Your task to perform on an android device: Search for macbook pro 13 inch on bestbuy.com, select the first entry, and add it to the cart. Image 0: 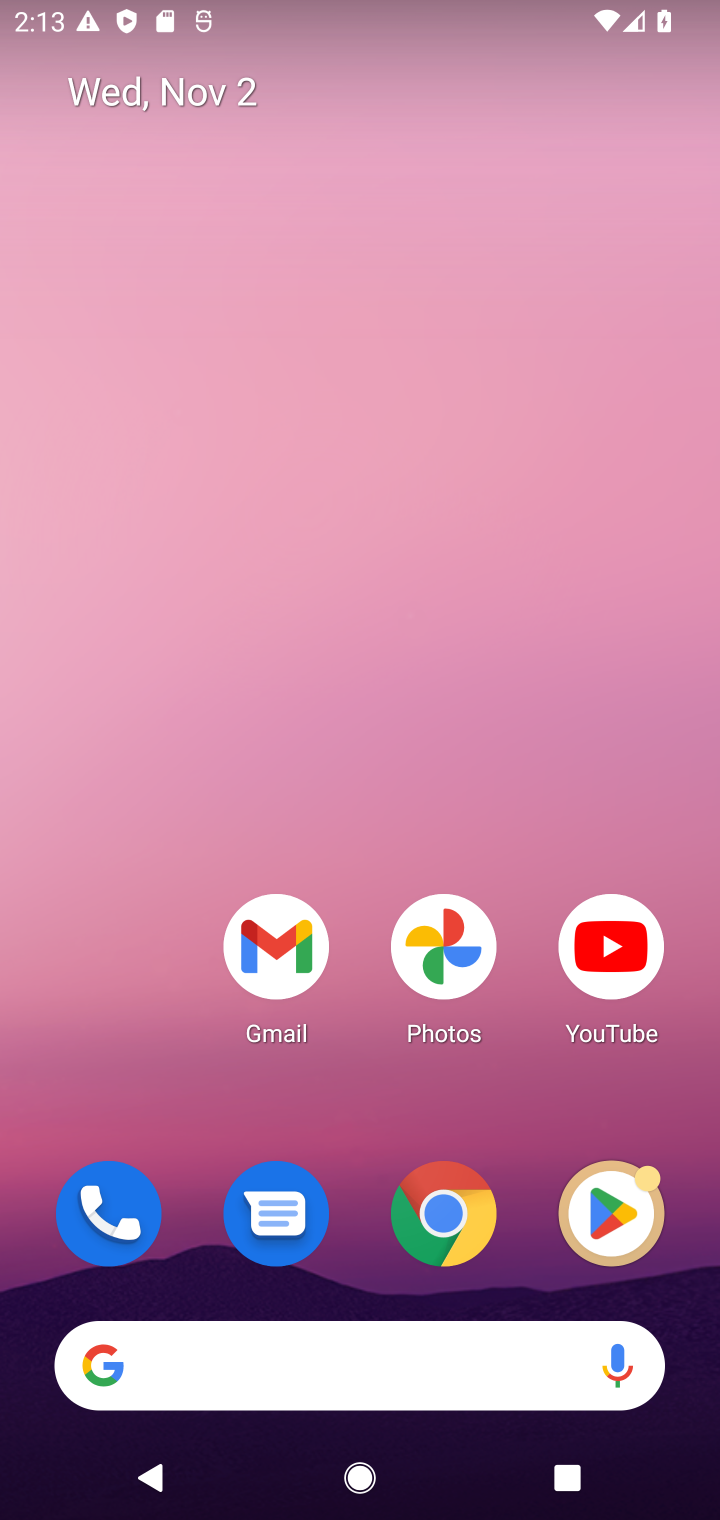
Step 0: click (446, 1221)
Your task to perform on an android device: Search for macbook pro 13 inch on bestbuy.com, select the first entry, and add it to the cart. Image 1: 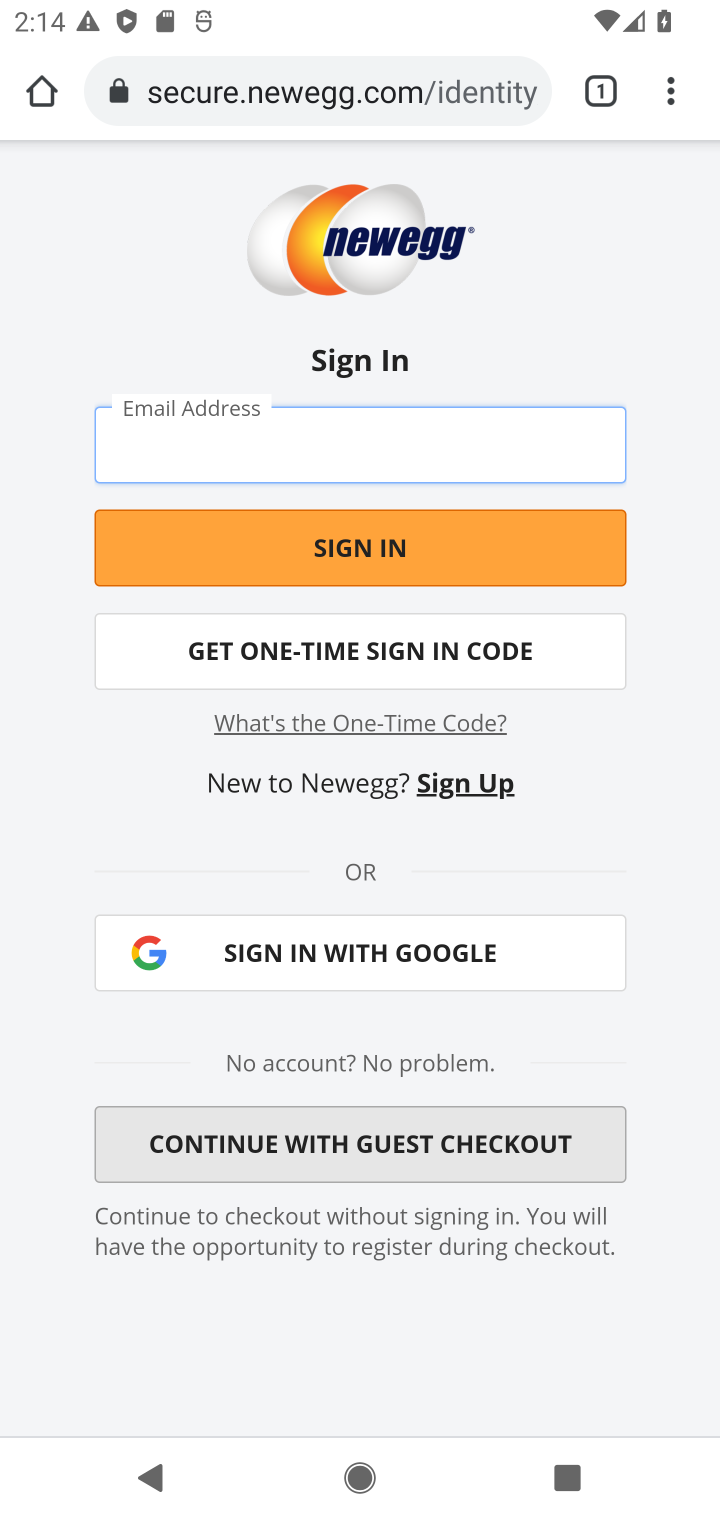
Step 1: click (375, 89)
Your task to perform on an android device: Search for macbook pro 13 inch on bestbuy.com, select the first entry, and add it to the cart. Image 2: 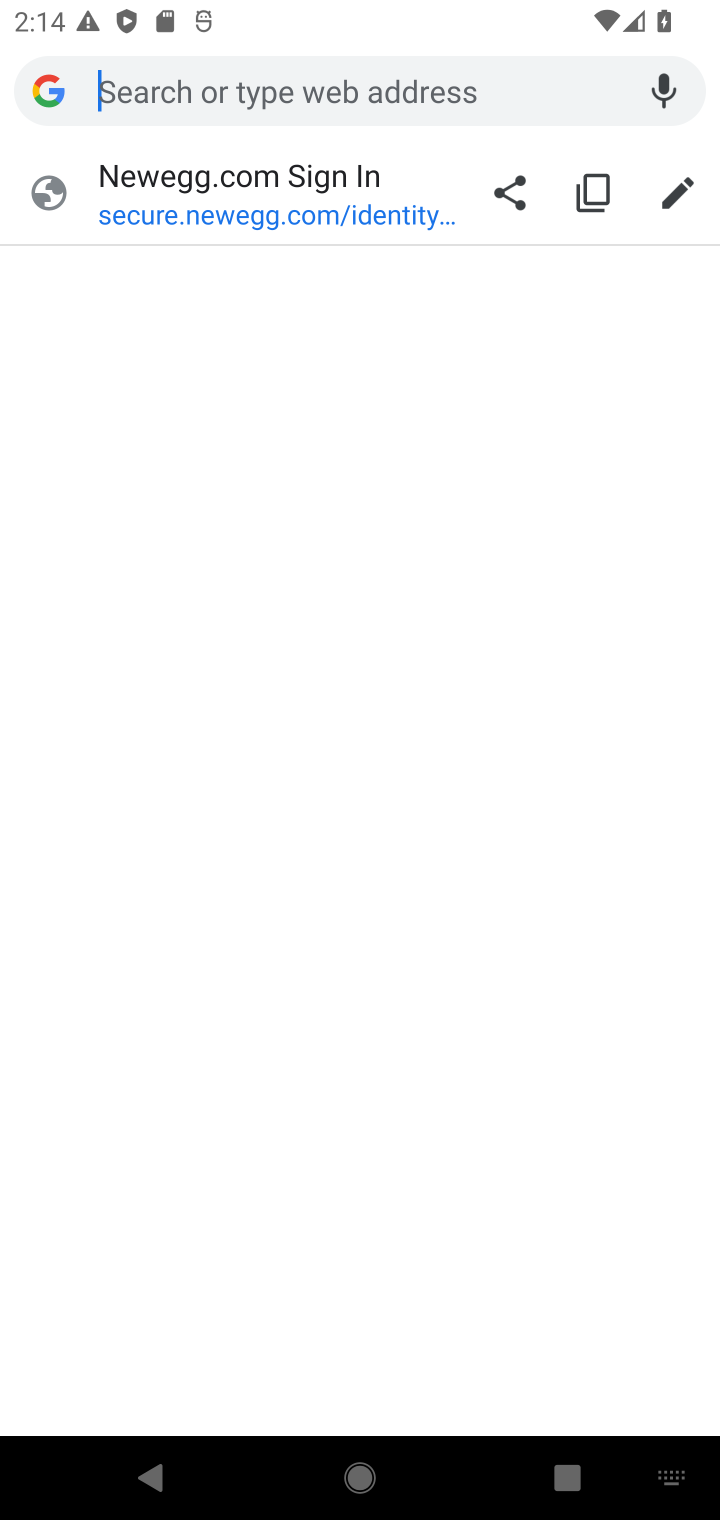
Step 2: type "bestbuy.com"
Your task to perform on an android device: Search for macbook pro 13 inch on bestbuy.com, select the first entry, and add it to the cart. Image 3: 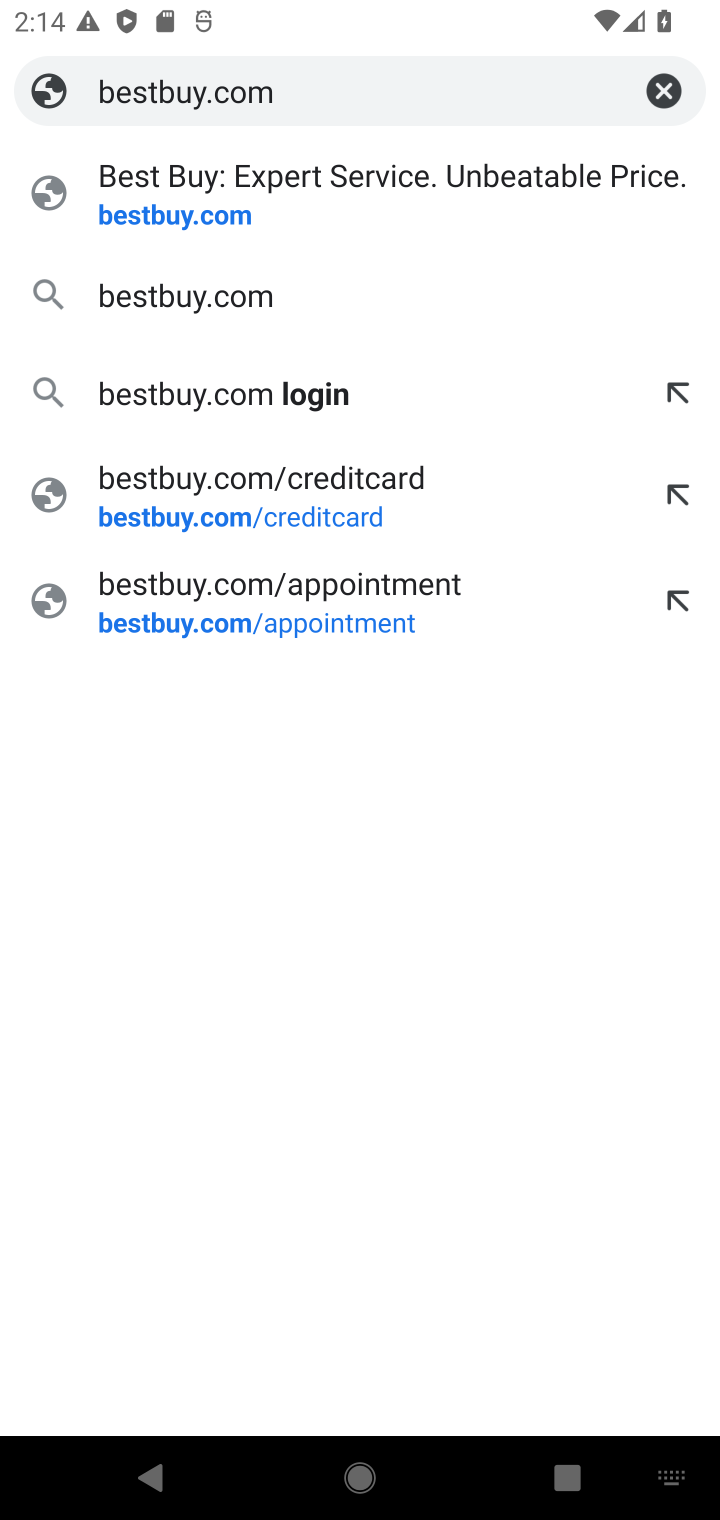
Step 3: press enter
Your task to perform on an android device: Search for macbook pro 13 inch on bestbuy.com, select the first entry, and add it to the cart. Image 4: 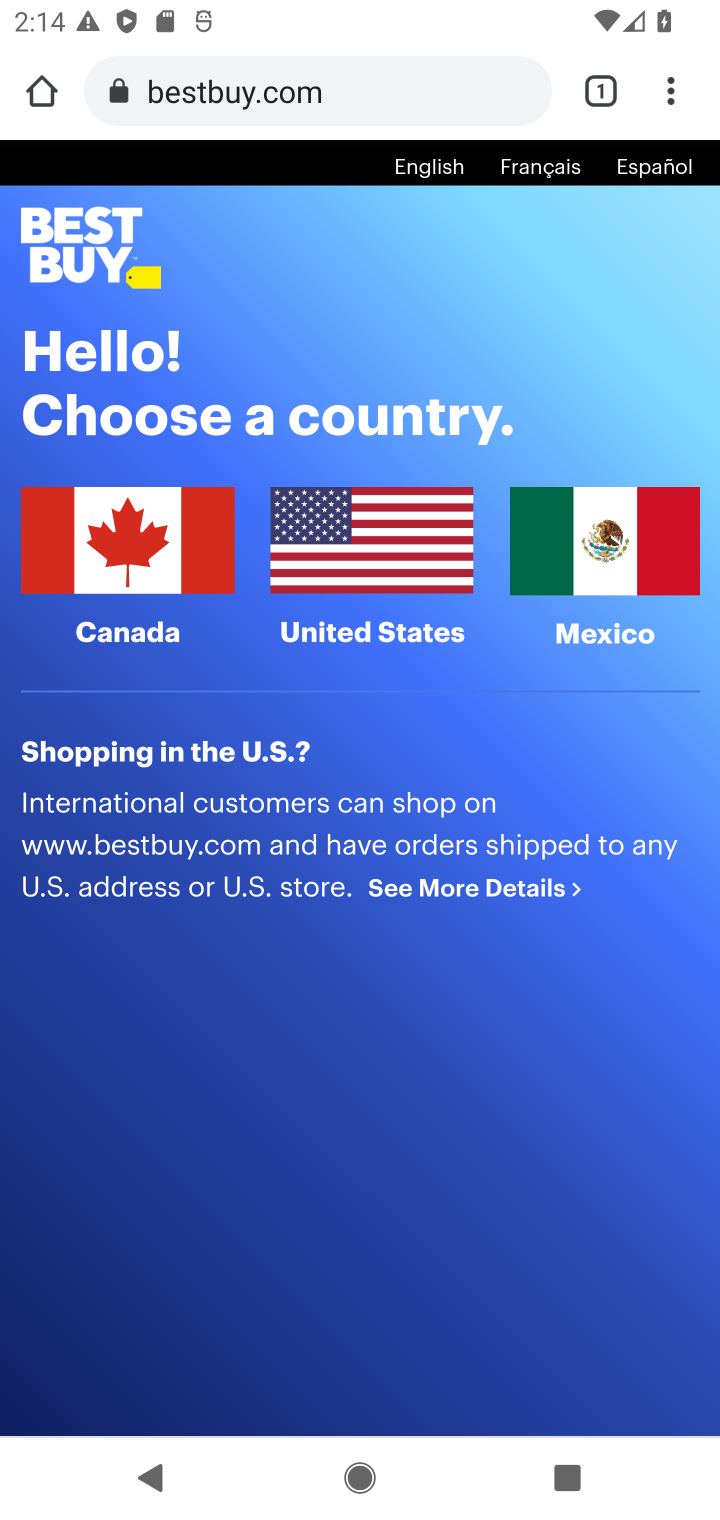
Step 4: click (360, 533)
Your task to perform on an android device: Search for macbook pro 13 inch on bestbuy.com, select the first entry, and add it to the cart. Image 5: 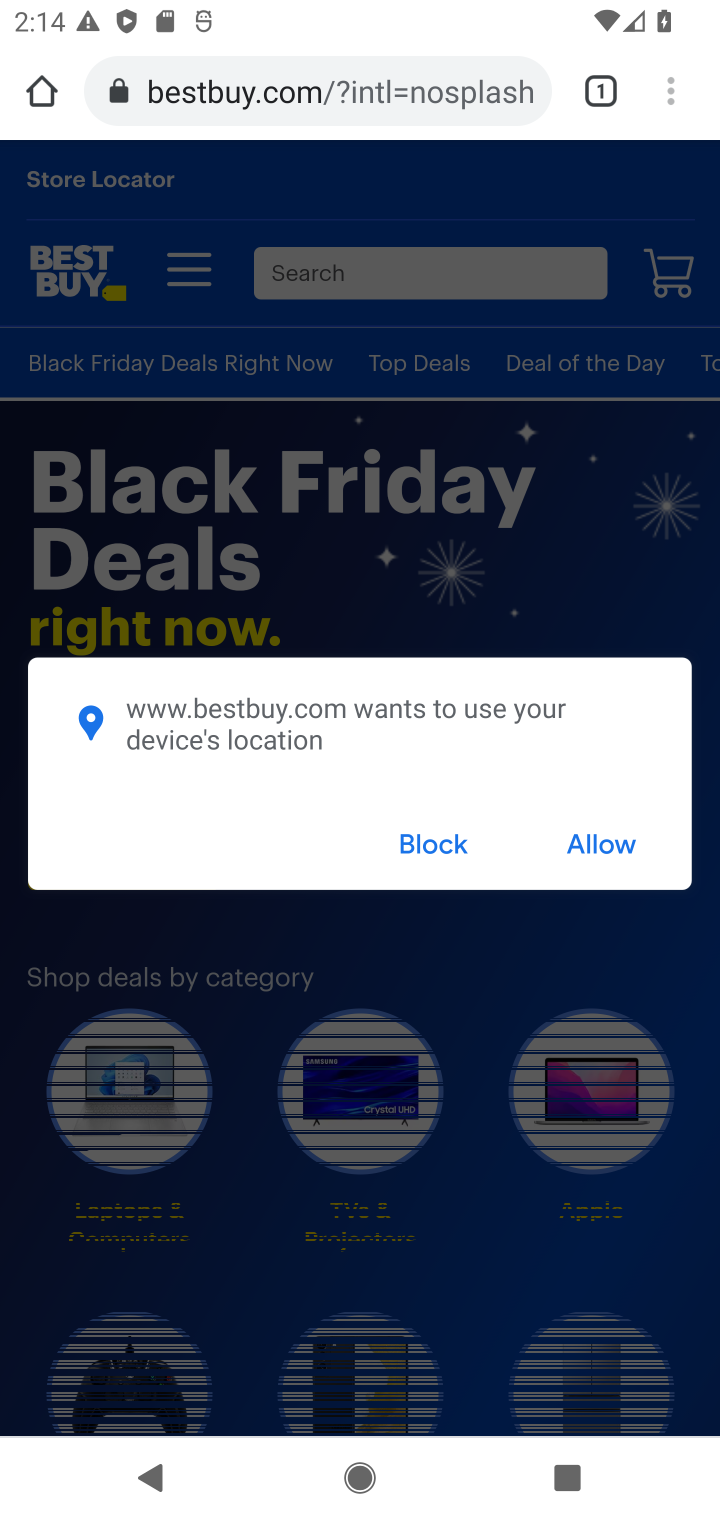
Step 5: click (592, 845)
Your task to perform on an android device: Search for macbook pro 13 inch on bestbuy.com, select the first entry, and add it to the cart. Image 6: 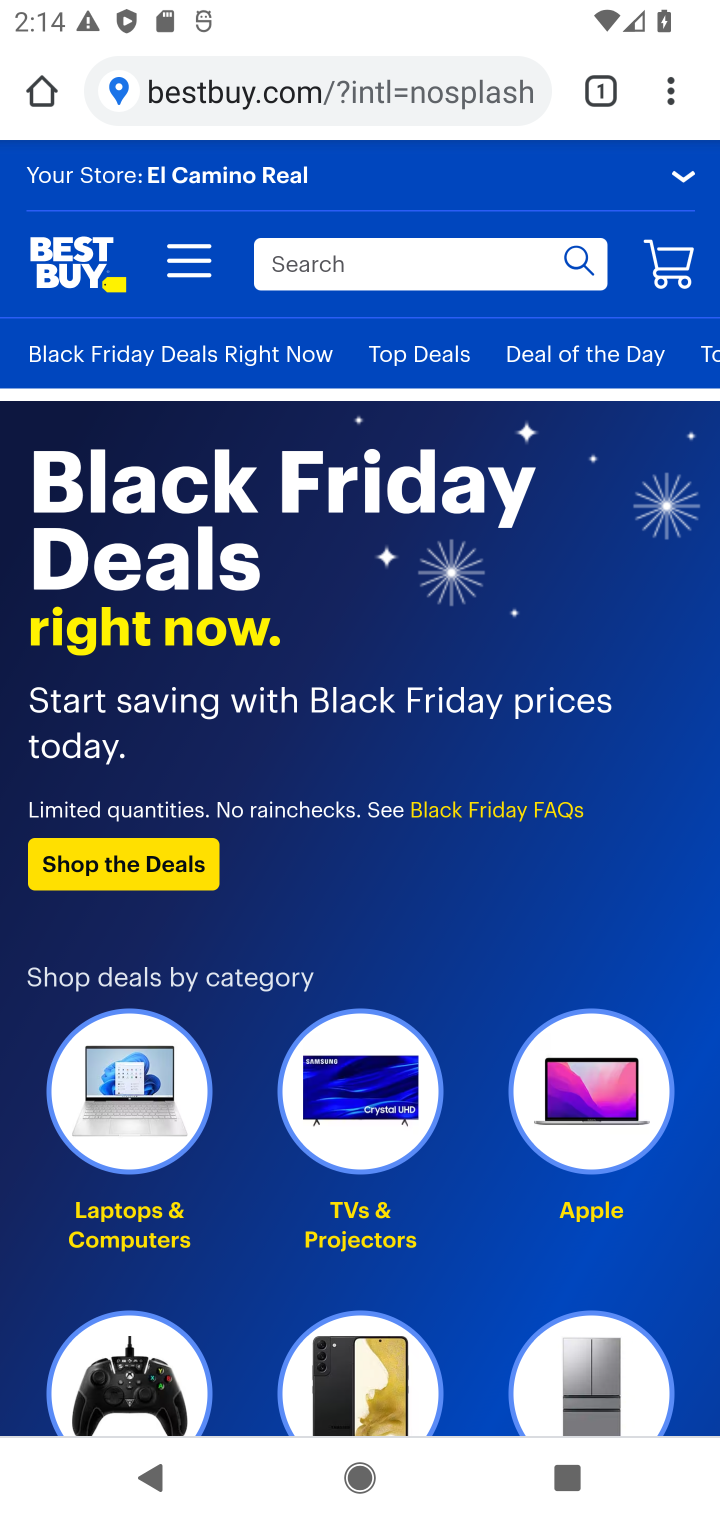
Step 6: click (347, 269)
Your task to perform on an android device: Search for macbook pro 13 inch on bestbuy.com, select the first entry, and add it to the cart. Image 7: 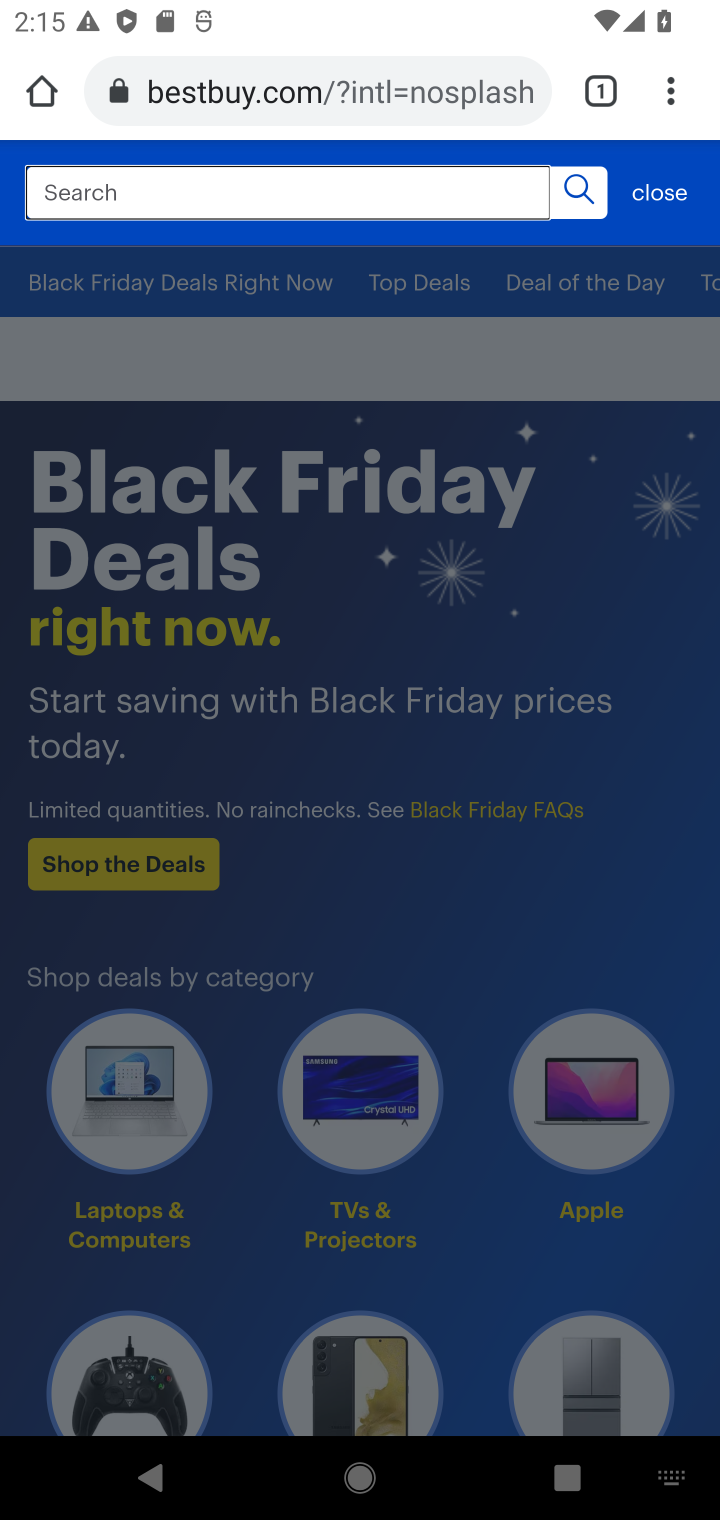
Step 7: type "macbook pro 13 inch"
Your task to perform on an android device: Search for macbook pro 13 inch on bestbuy.com, select the first entry, and add it to the cart. Image 8: 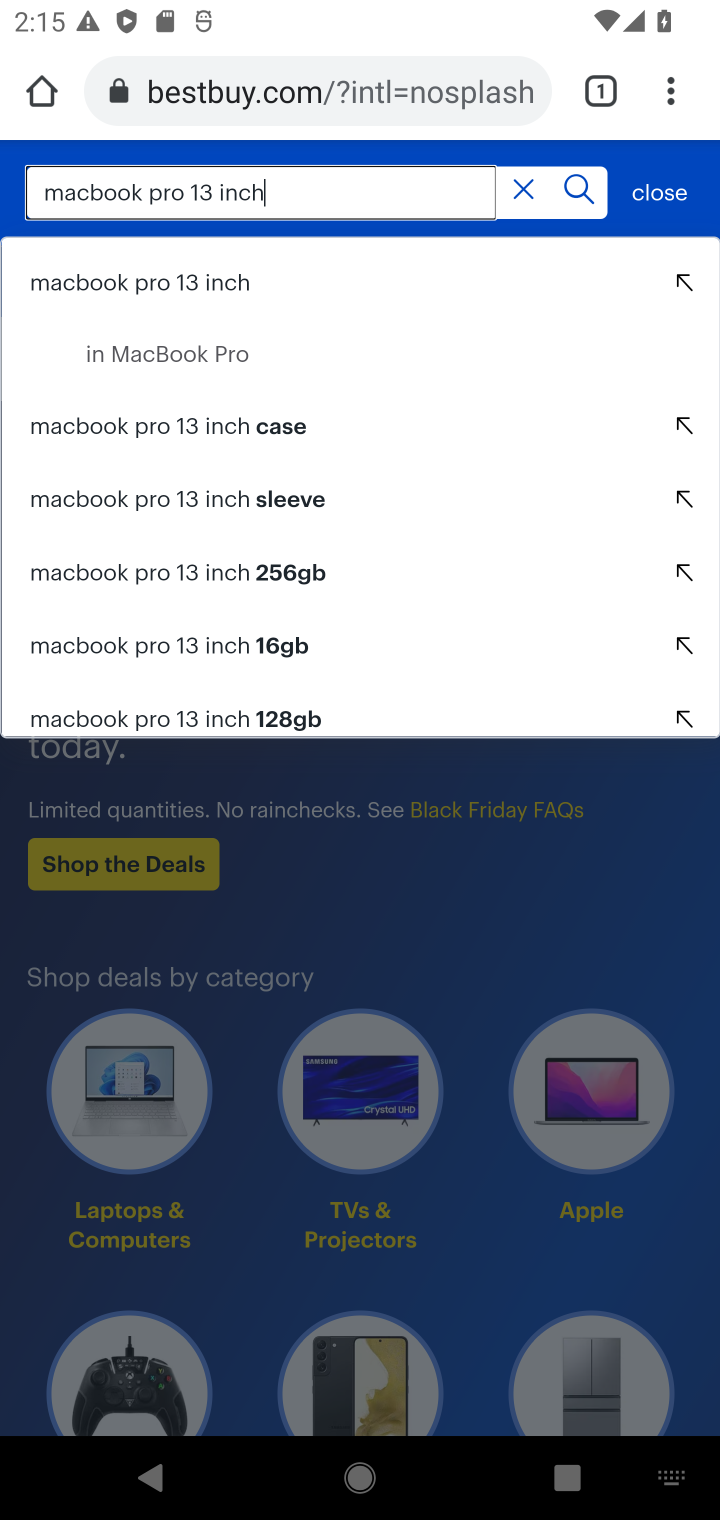
Step 8: press enter
Your task to perform on an android device: Search for macbook pro 13 inch on bestbuy.com, select the first entry, and add it to the cart. Image 9: 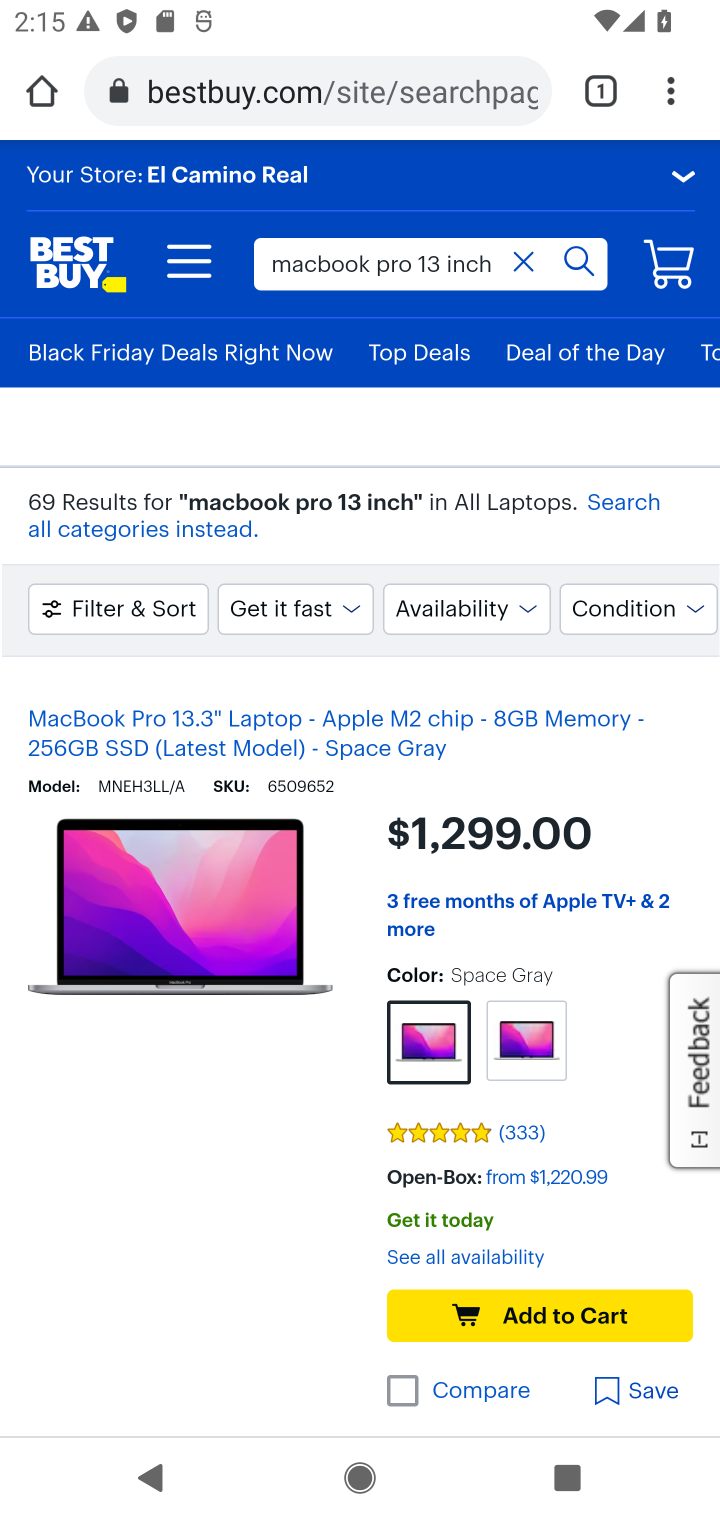
Step 9: click (227, 882)
Your task to perform on an android device: Search for macbook pro 13 inch on bestbuy.com, select the first entry, and add it to the cart. Image 10: 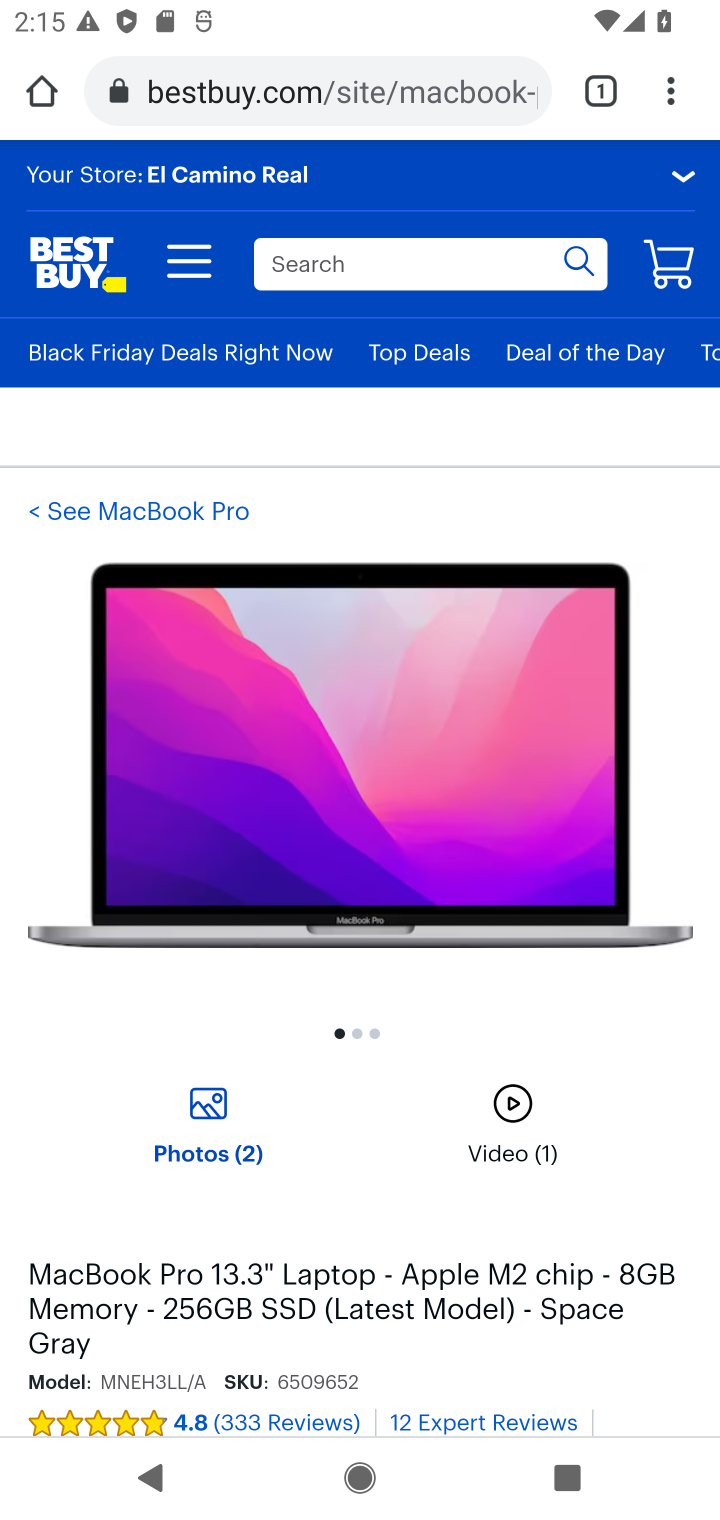
Step 10: drag from (419, 1348) to (330, 788)
Your task to perform on an android device: Search for macbook pro 13 inch on bestbuy.com, select the first entry, and add it to the cart. Image 11: 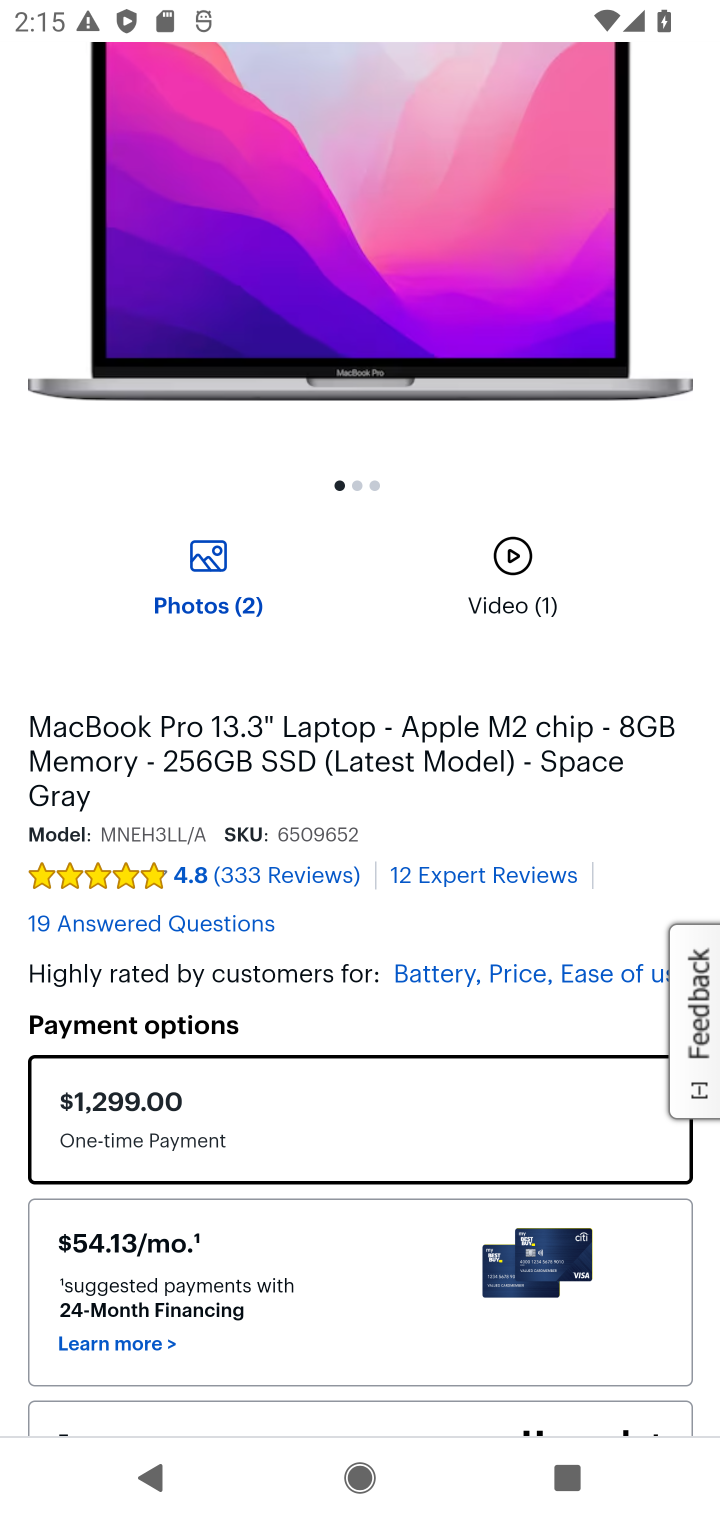
Step 11: drag from (688, 1396) to (456, 509)
Your task to perform on an android device: Search for macbook pro 13 inch on bestbuy.com, select the first entry, and add it to the cart. Image 12: 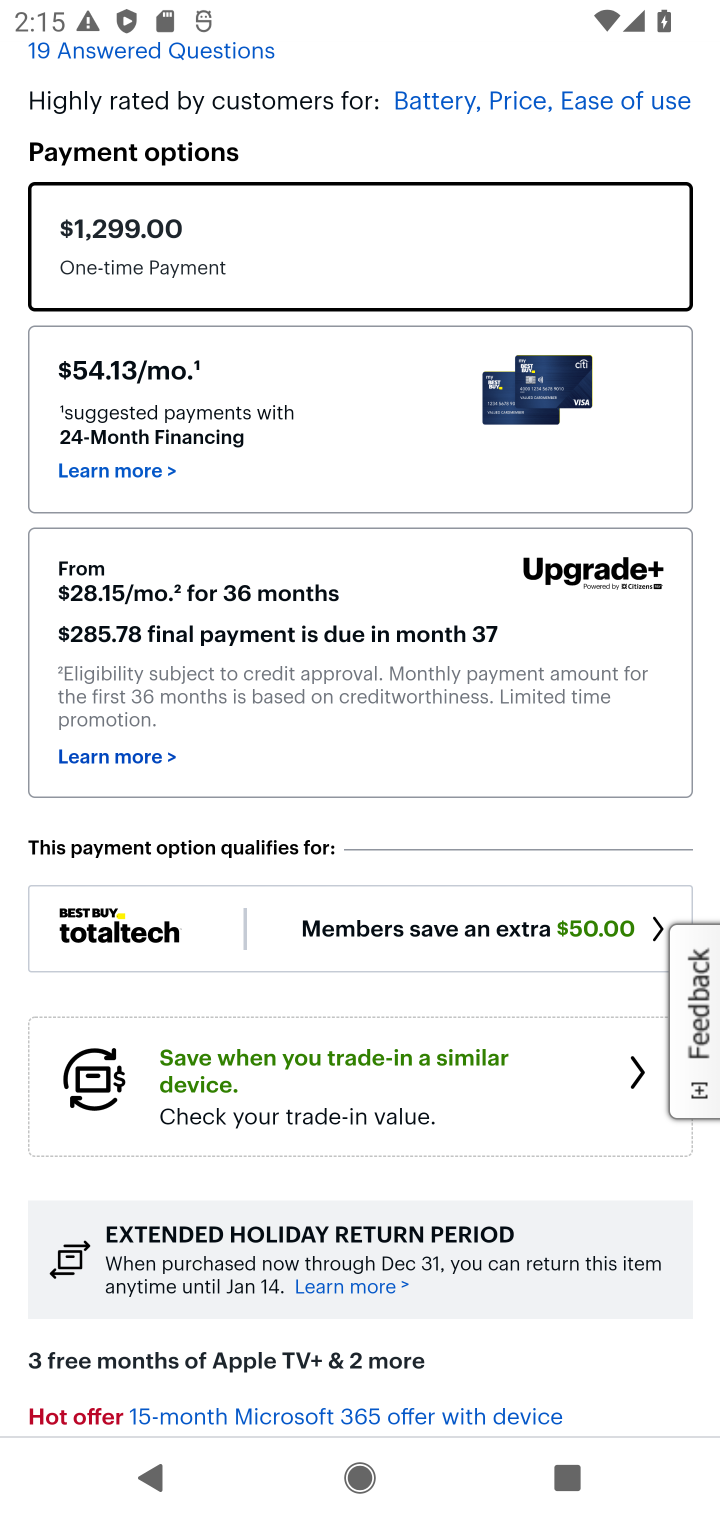
Step 12: drag from (329, 994) to (274, 539)
Your task to perform on an android device: Search for macbook pro 13 inch on bestbuy.com, select the first entry, and add it to the cart. Image 13: 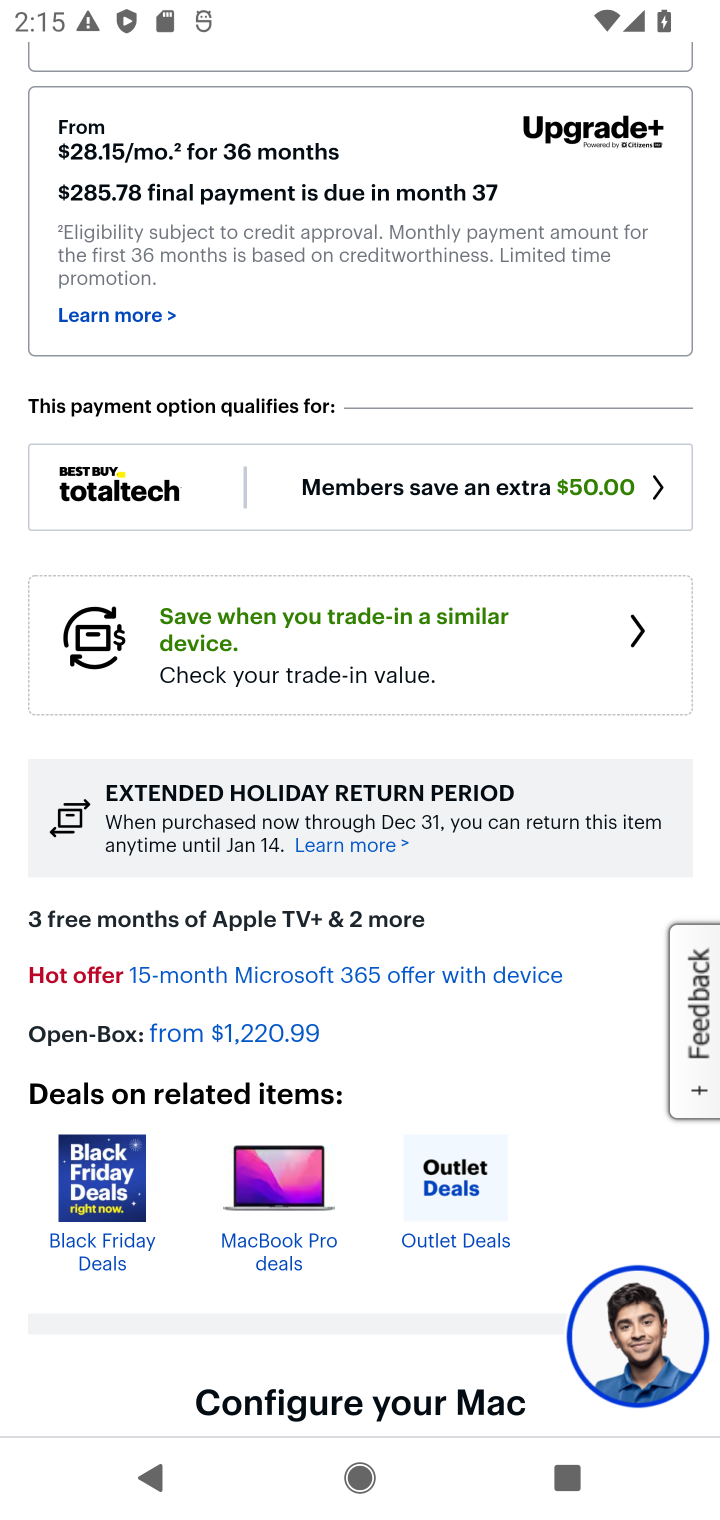
Step 13: drag from (377, 1127) to (285, 250)
Your task to perform on an android device: Search for macbook pro 13 inch on bestbuy.com, select the first entry, and add it to the cart. Image 14: 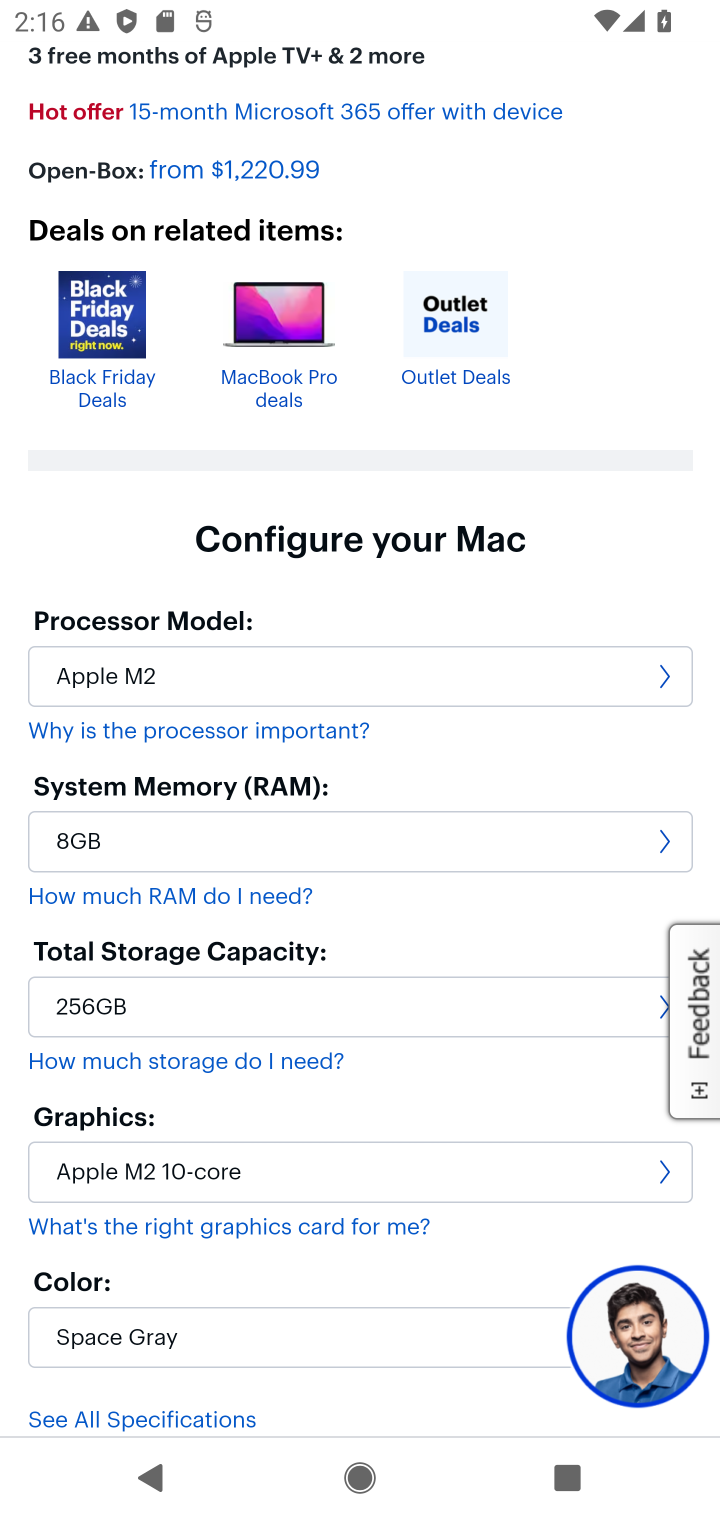
Step 14: drag from (347, 482) to (502, 1519)
Your task to perform on an android device: Search for macbook pro 13 inch on bestbuy.com, select the first entry, and add it to the cart. Image 15: 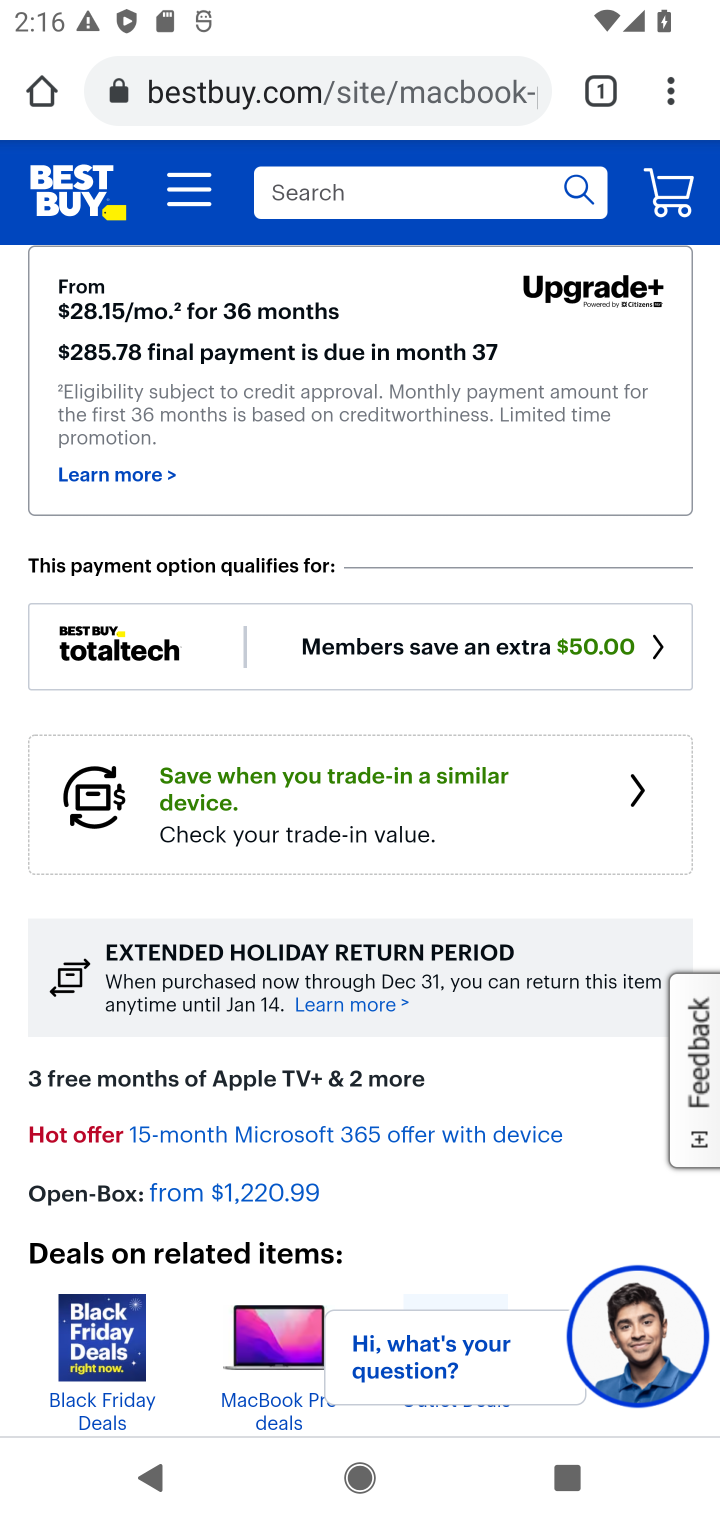
Step 15: drag from (381, 553) to (448, 1446)
Your task to perform on an android device: Search for macbook pro 13 inch on bestbuy.com, select the first entry, and add it to the cart. Image 16: 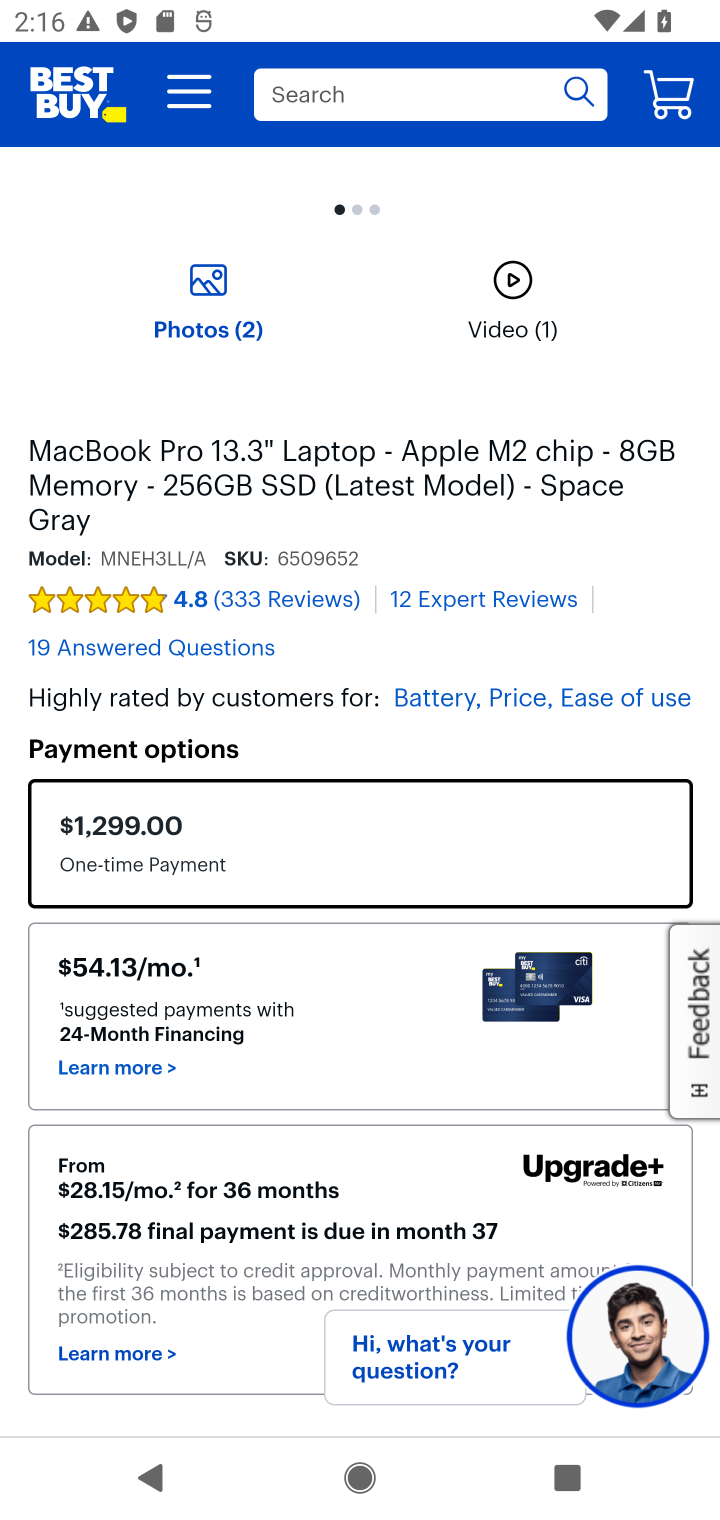
Step 16: drag from (527, 559) to (608, 1418)
Your task to perform on an android device: Search for macbook pro 13 inch on bestbuy.com, select the first entry, and add it to the cart. Image 17: 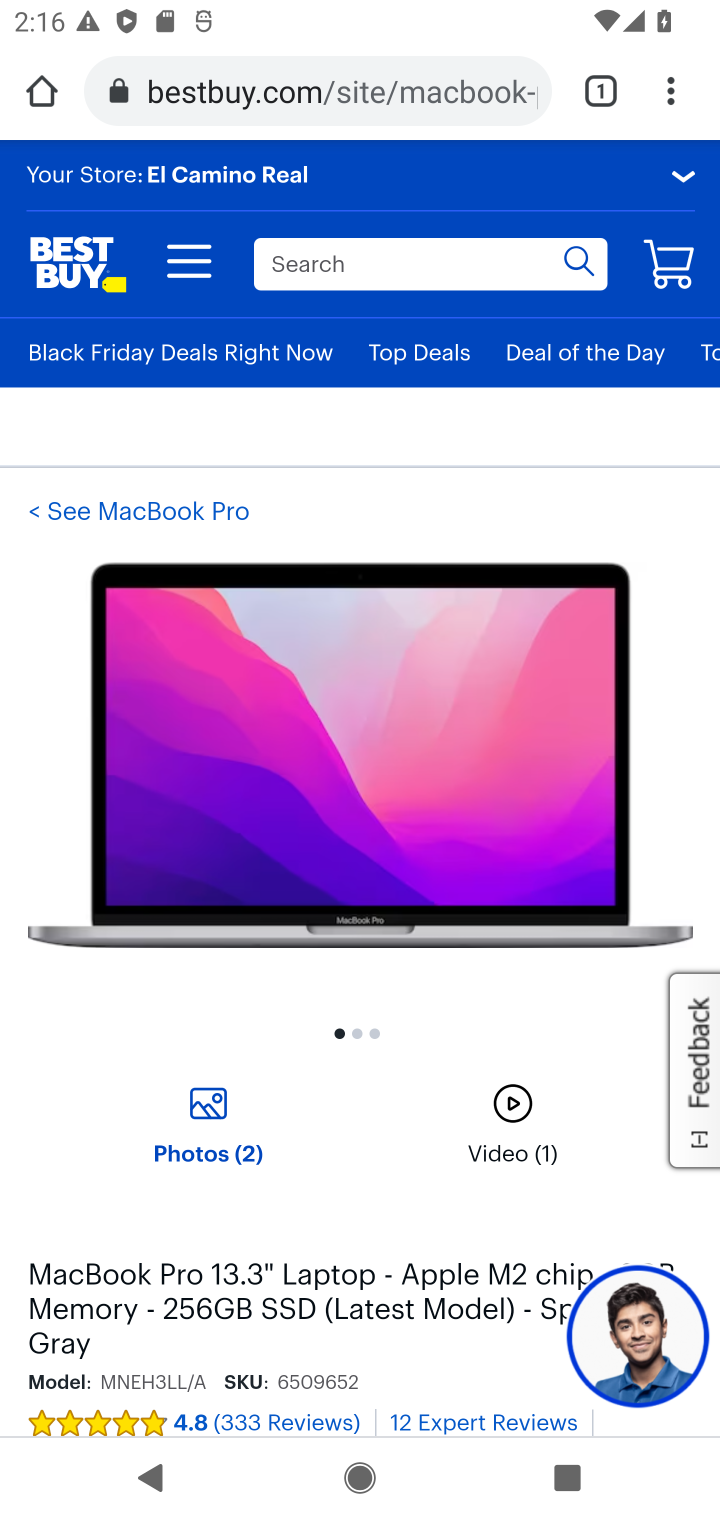
Step 17: drag from (604, 1054) to (369, 175)
Your task to perform on an android device: Search for macbook pro 13 inch on bestbuy.com, select the first entry, and add it to the cart. Image 18: 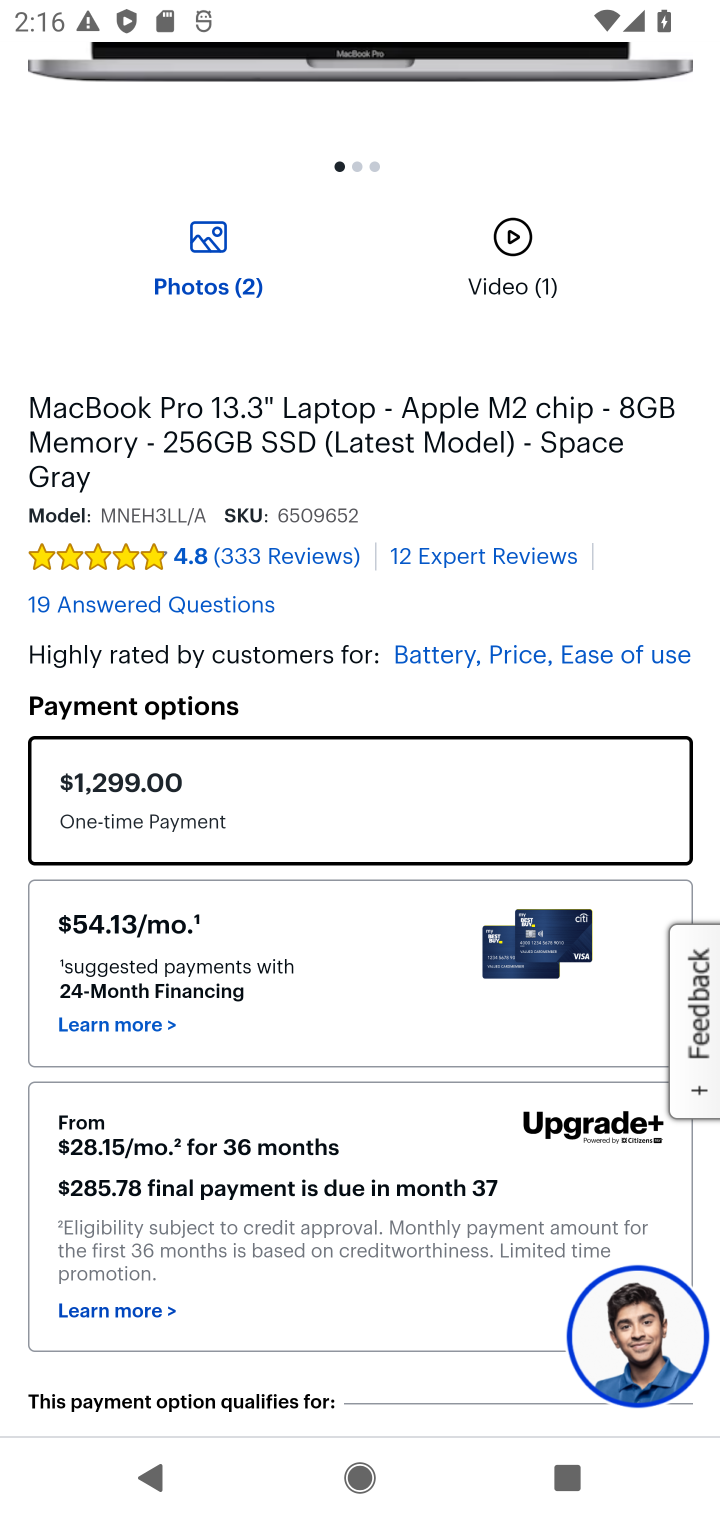
Step 18: drag from (263, 1379) to (208, 47)
Your task to perform on an android device: Search for macbook pro 13 inch on bestbuy.com, select the first entry, and add it to the cart. Image 19: 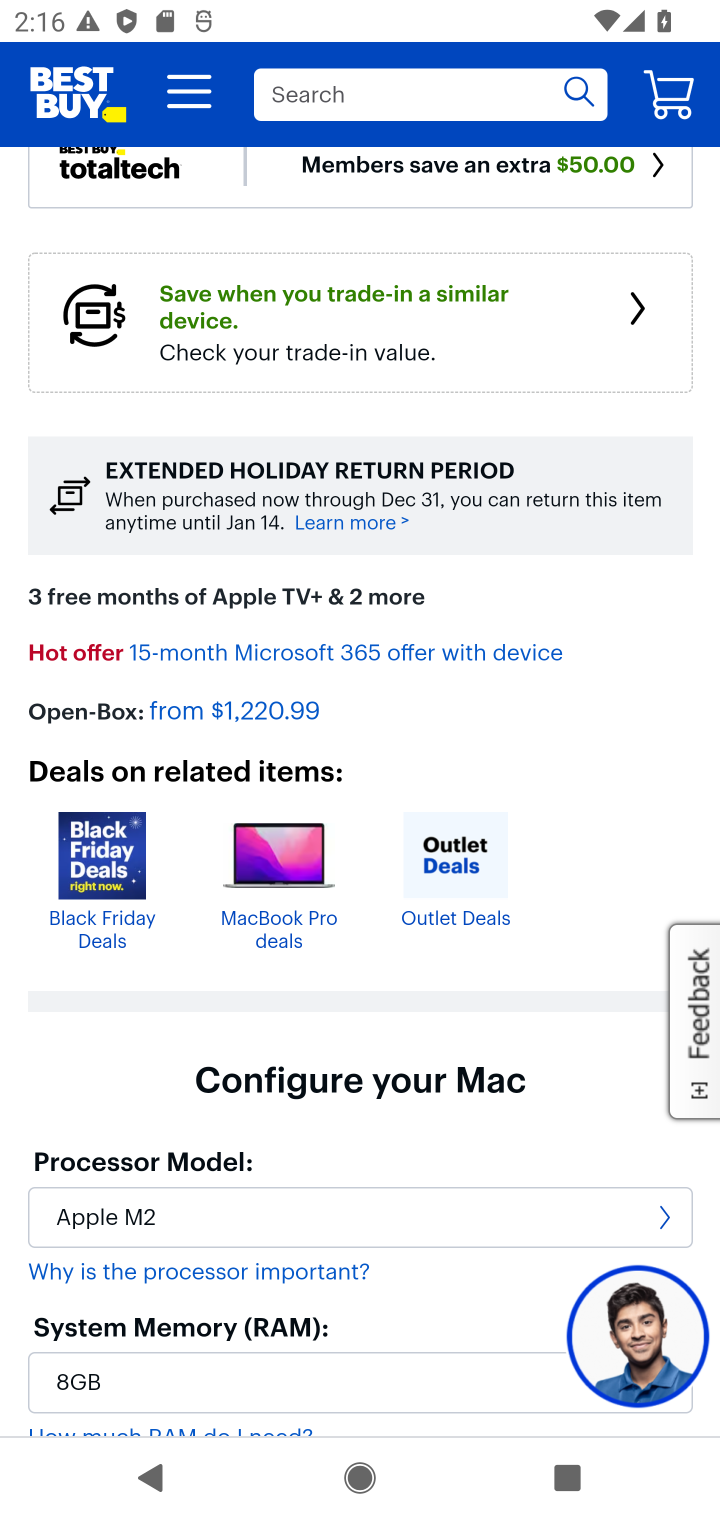
Step 19: drag from (294, 994) to (271, 20)
Your task to perform on an android device: Search for macbook pro 13 inch on bestbuy.com, select the first entry, and add it to the cart. Image 20: 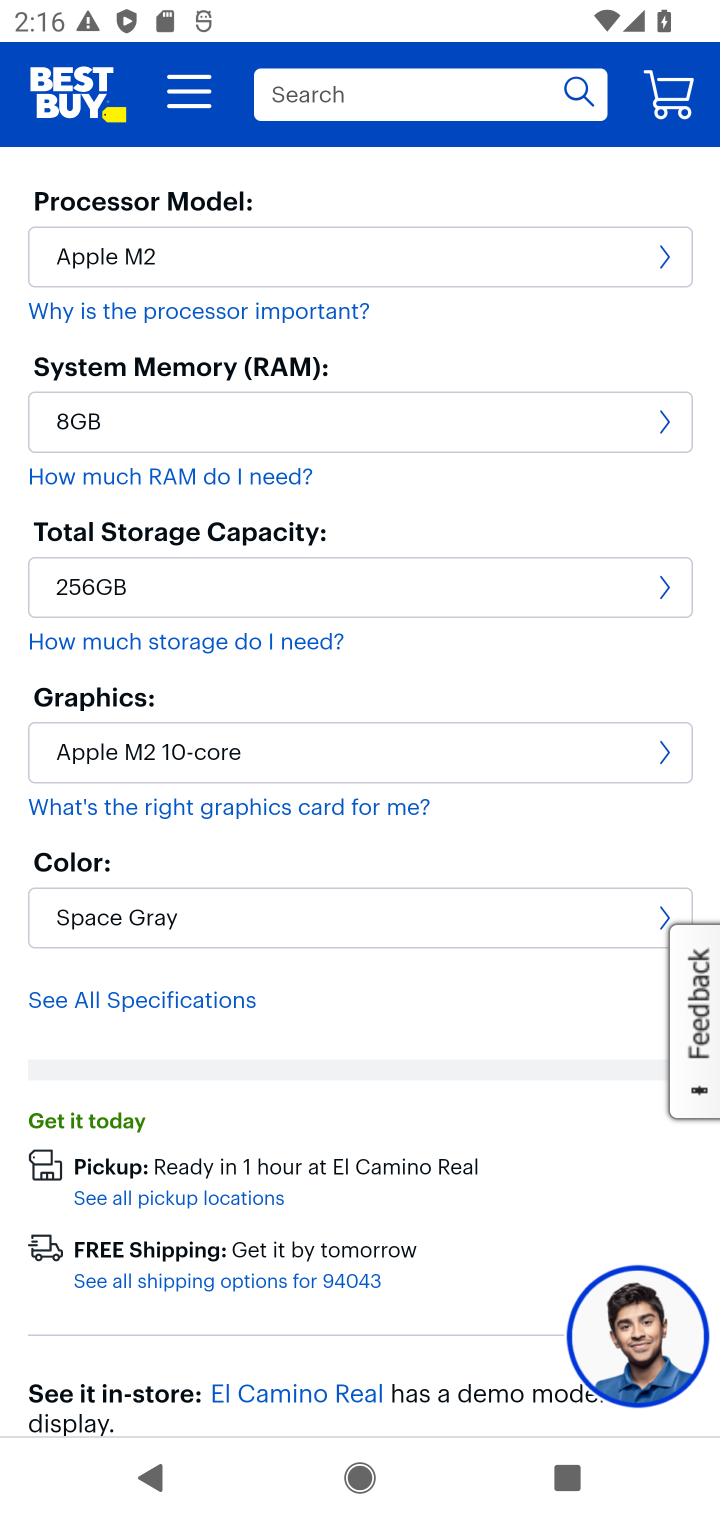
Step 20: drag from (478, 1311) to (347, 327)
Your task to perform on an android device: Search for macbook pro 13 inch on bestbuy.com, select the first entry, and add it to the cart. Image 21: 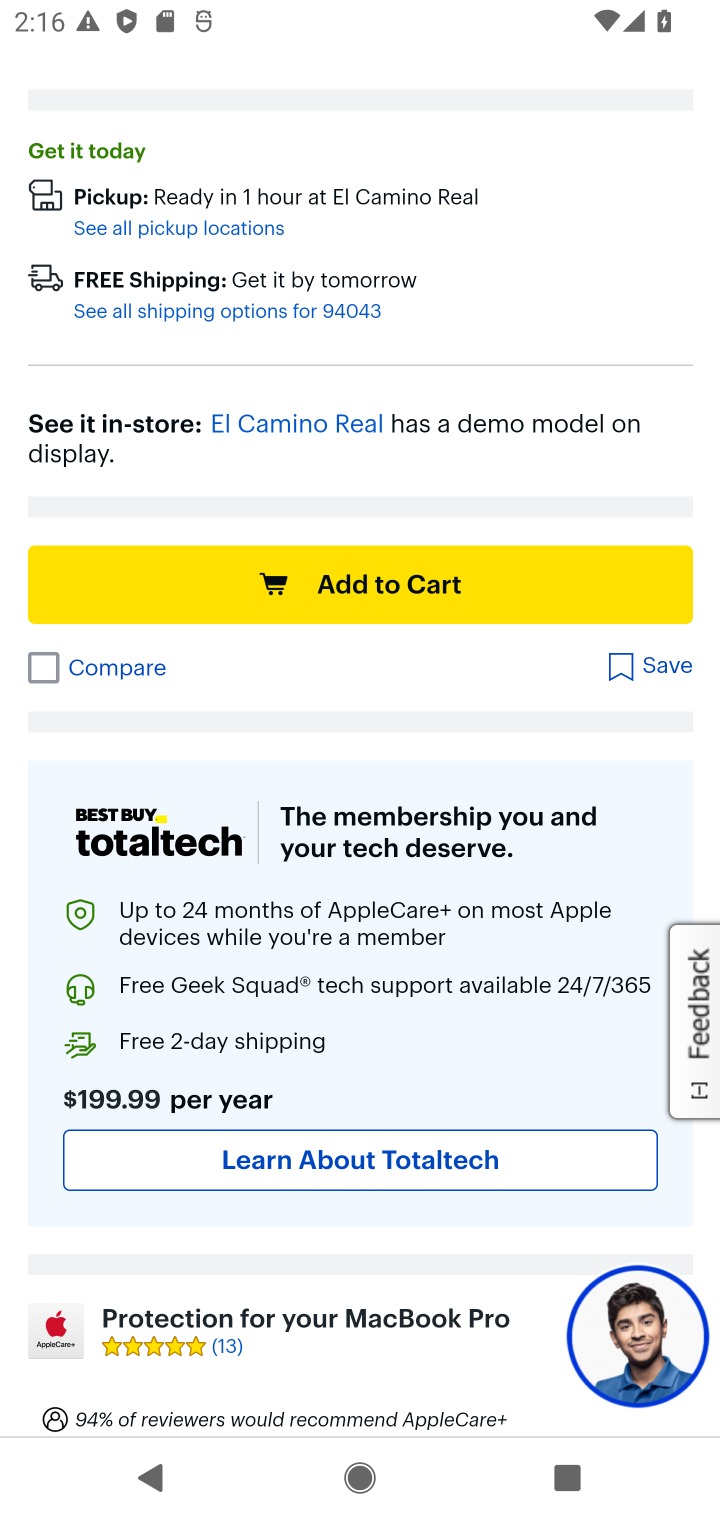
Step 21: click (347, 589)
Your task to perform on an android device: Search for macbook pro 13 inch on bestbuy.com, select the first entry, and add it to the cart. Image 22: 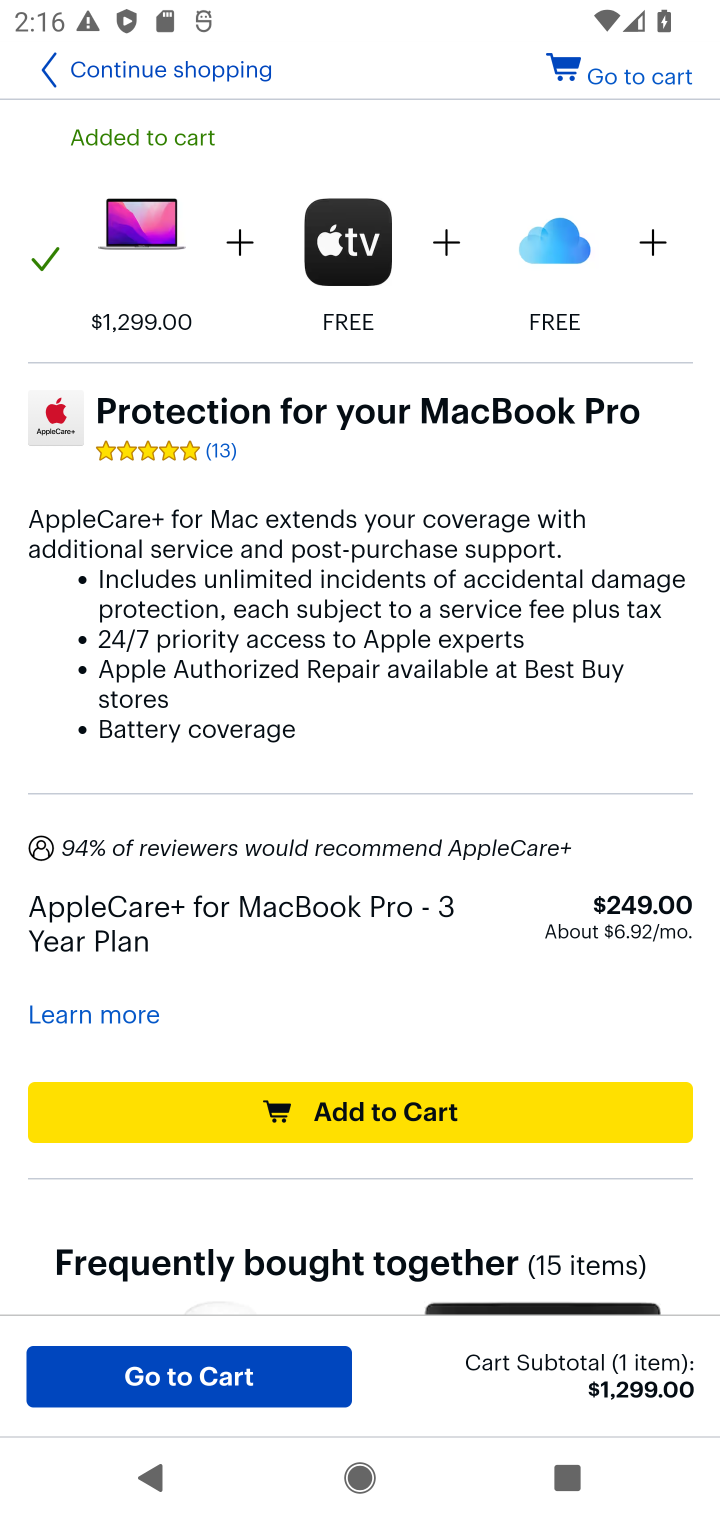
Step 22: task complete